Your task to perform on an android device: Go to wifi settings Image 0: 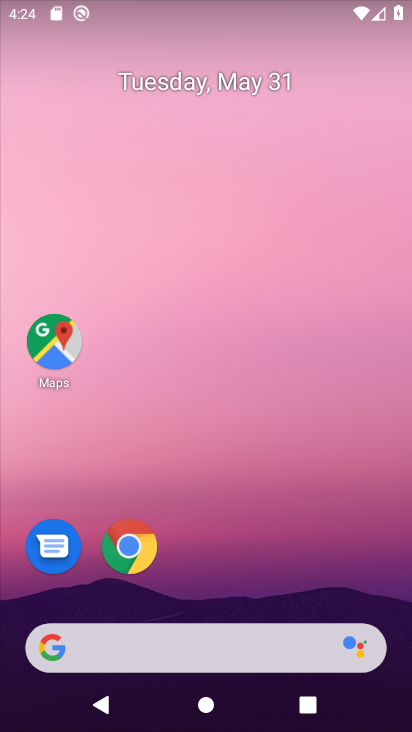
Step 0: drag from (235, 586) to (254, 59)
Your task to perform on an android device: Go to wifi settings Image 1: 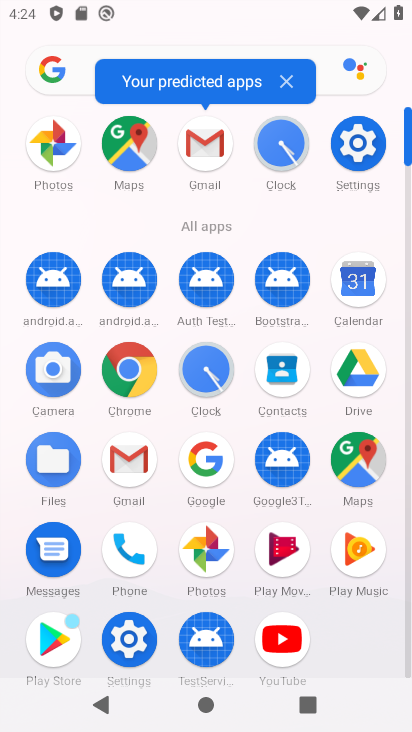
Step 1: click (370, 134)
Your task to perform on an android device: Go to wifi settings Image 2: 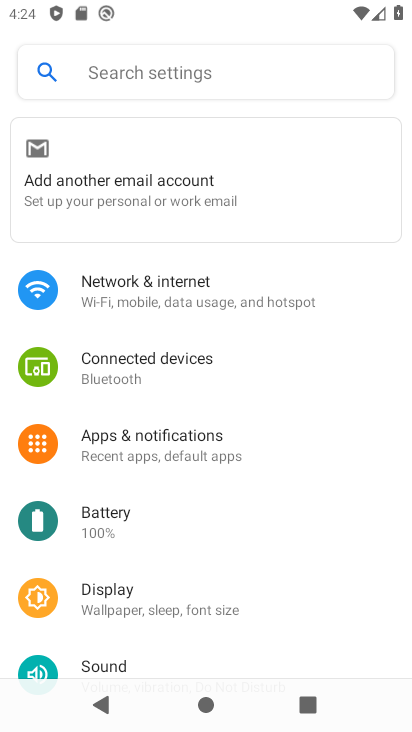
Step 2: click (190, 298)
Your task to perform on an android device: Go to wifi settings Image 3: 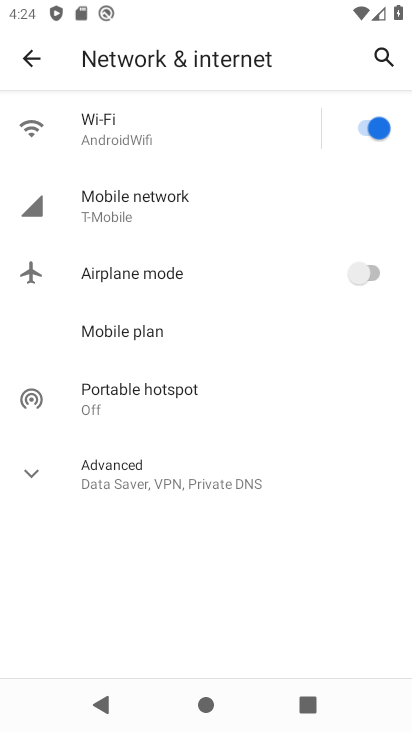
Step 3: click (158, 130)
Your task to perform on an android device: Go to wifi settings Image 4: 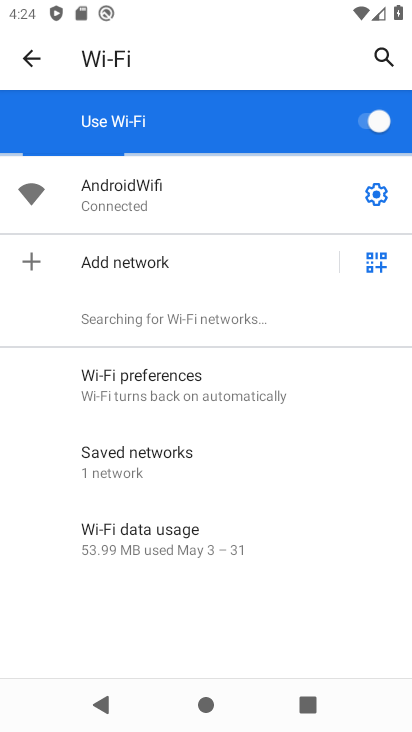
Step 4: task complete